Your task to perform on an android device: turn on sleep mode Image 0: 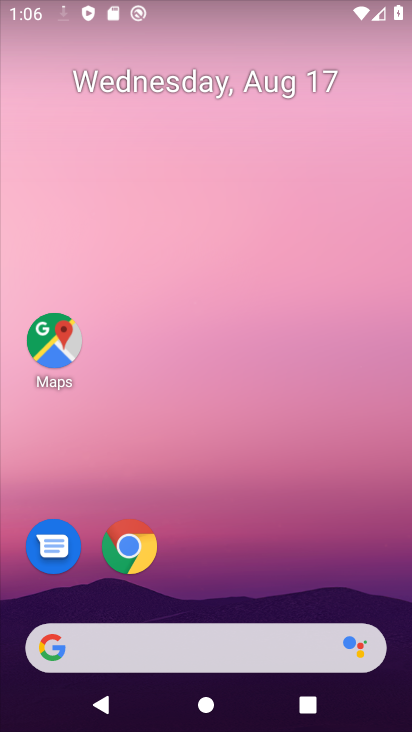
Step 0: drag from (262, 590) to (250, 76)
Your task to perform on an android device: turn on sleep mode Image 1: 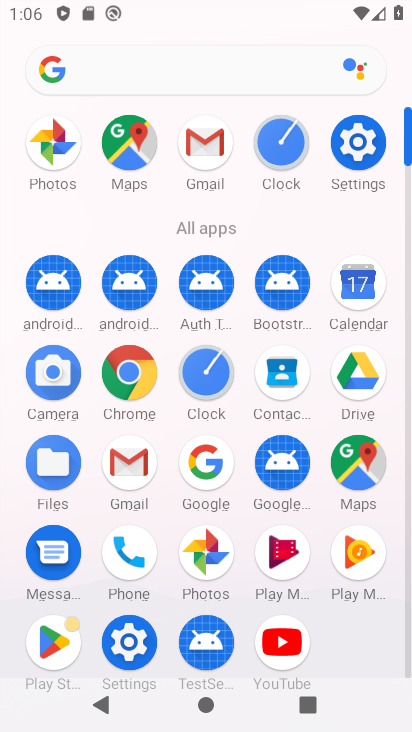
Step 1: click (360, 141)
Your task to perform on an android device: turn on sleep mode Image 2: 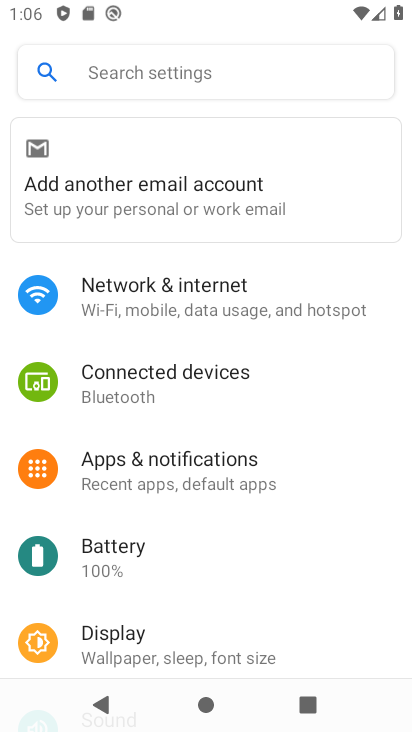
Step 2: click (116, 646)
Your task to perform on an android device: turn on sleep mode Image 3: 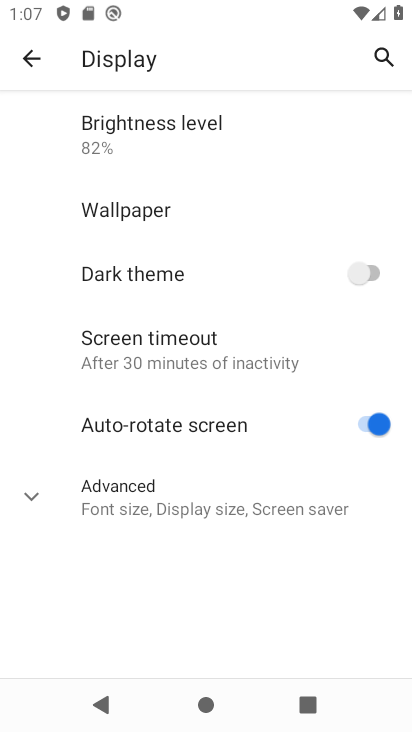
Step 3: task complete